Your task to perform on an android device: clear all cookies in the chrome app Image 0: 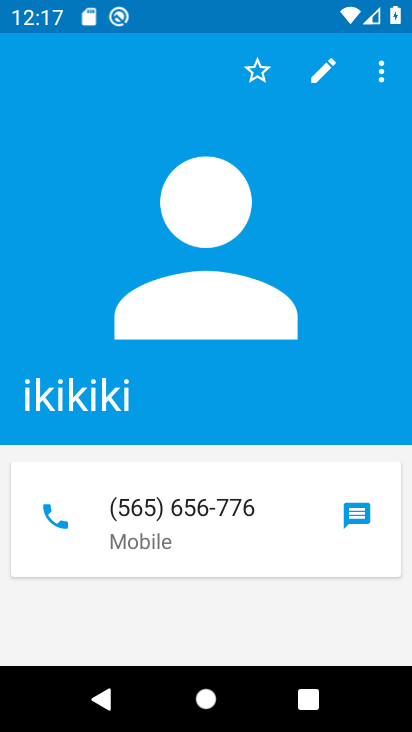
Step 0: press home button
Your task to perform on an android device: clear all cookies in the chrome app Image 1: 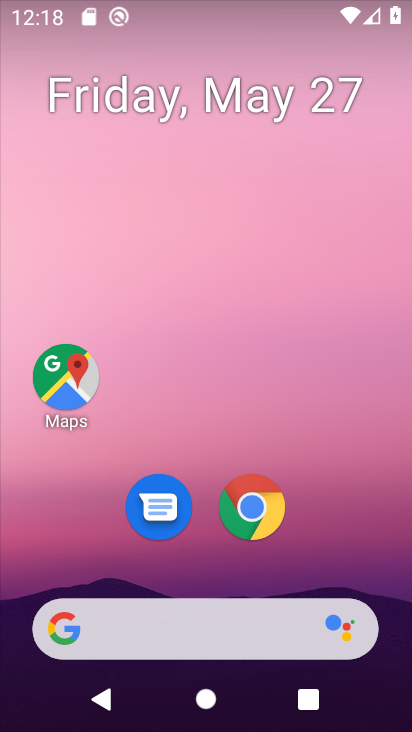
Step 1: click (270, 508)
Your task to perform on an android device: clear all cookies in the chrome app Image 2: 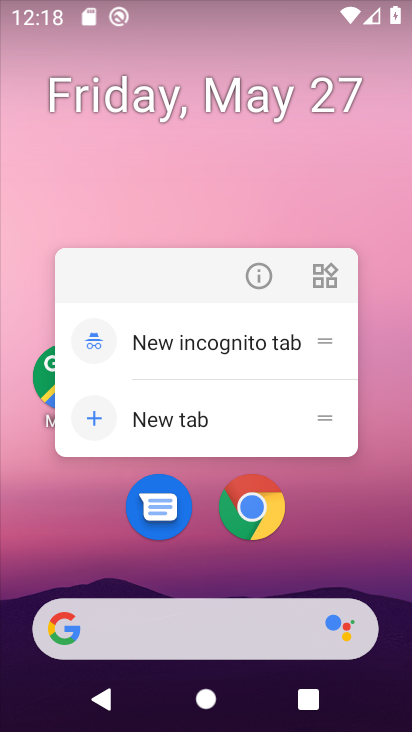
Step 2: click (271, 508)
Your task to perform on an android device: clear all cookies in the chrome app Image 3: 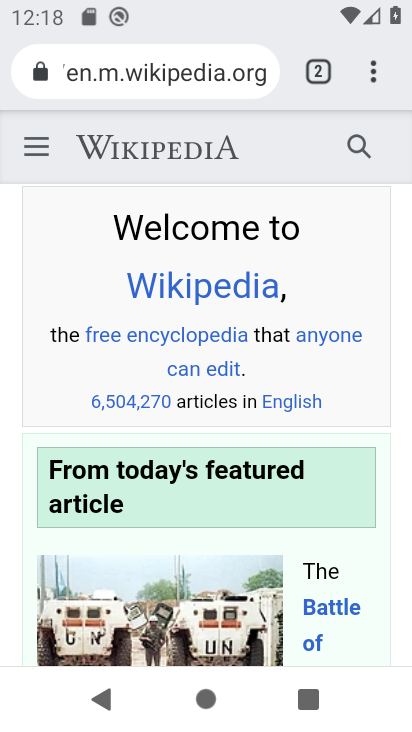
Step 3: drag from (375, 54) to (228, 488)
Your task to perform on an android device: clear all cookies in the chrome app Image 4: 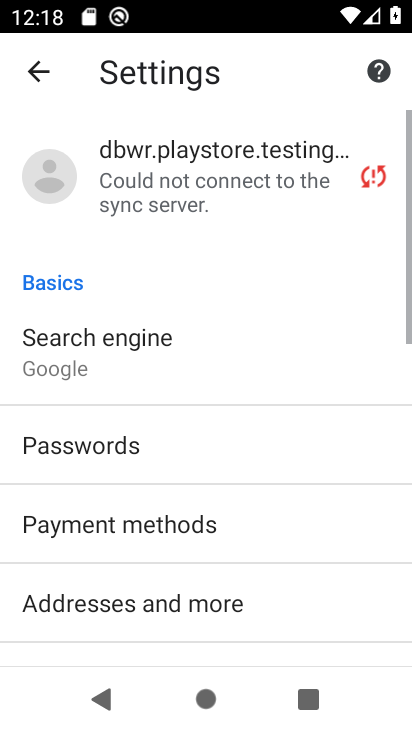
Step 4: drag from (196, 661) to (293, 178)
Your task to perform on an android device: clear all cookies in the chrome app Image 5: 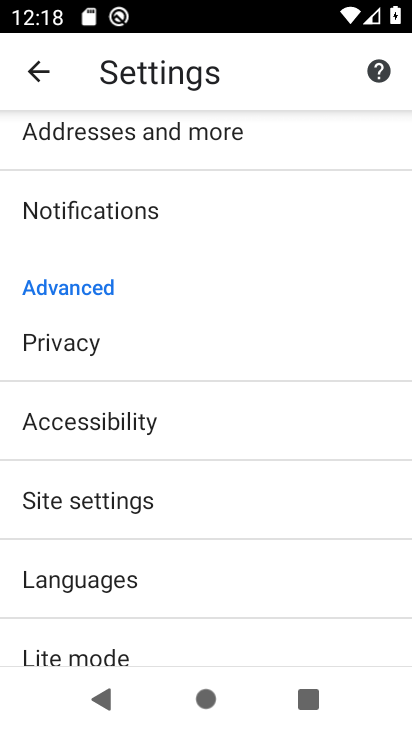
Step 5: click (127, 342)
Your task to perform on an android device: clear all cookies in the chrome app Image 6: 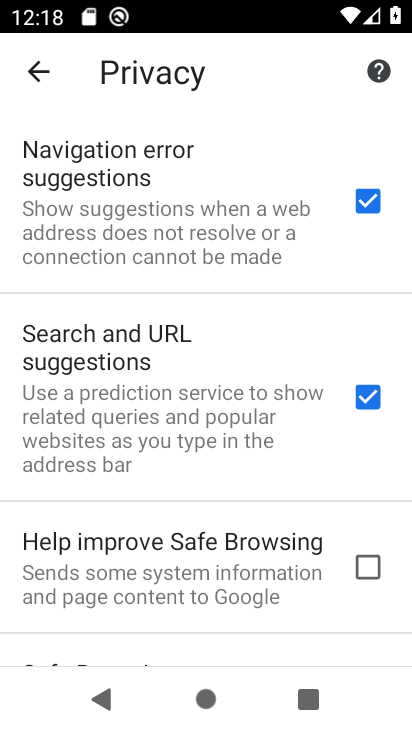
Step 6: drag from (123, 623) to (238, 140)
Your task to perform on an android device: clear all cookies in the chrome app Image 7: 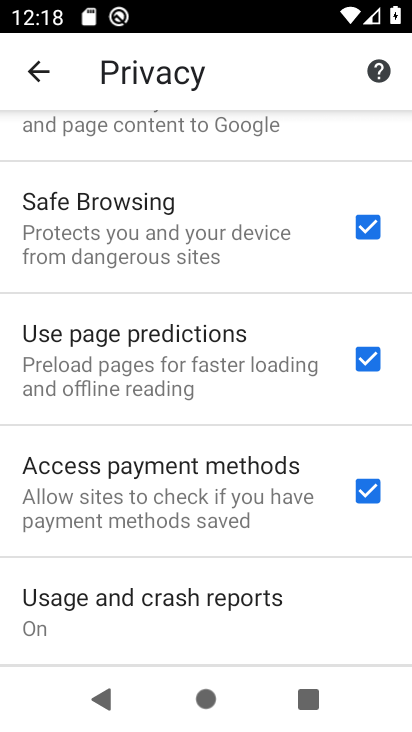
Step 7: drag from (157, 570) to (272, 99)
Your task to perform on an android device: clear all cookies in the chrome app Image 8: 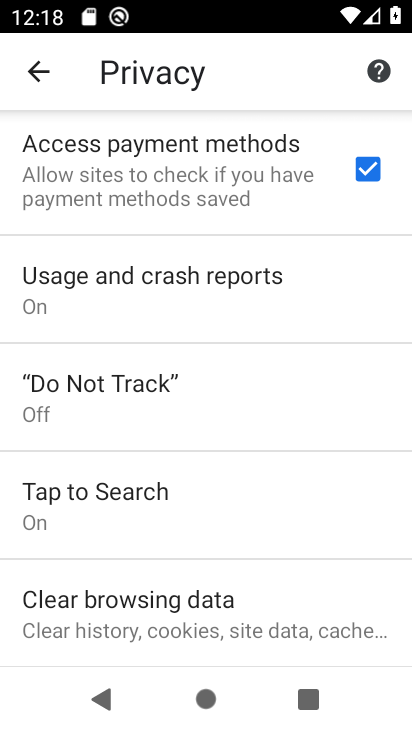
Step 8: click (173, 622)
Your task to perform on an android device: clear all cookies in the chrome app Image 9: 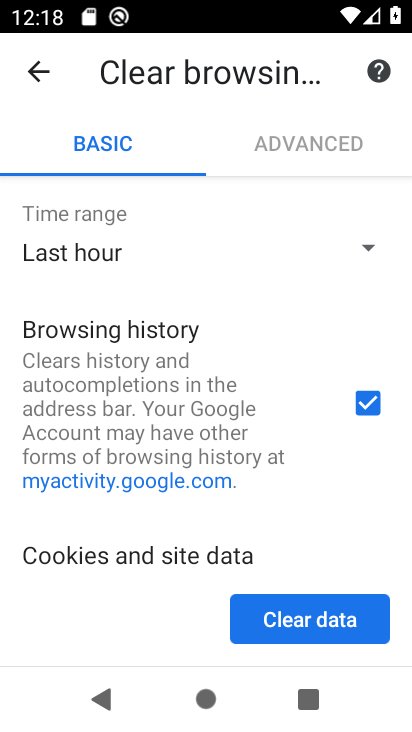
Step 9: drag from (72, 524) to (171, 281)
Your task to perform on an android device: clear all cookies in the chrome app Image 10: 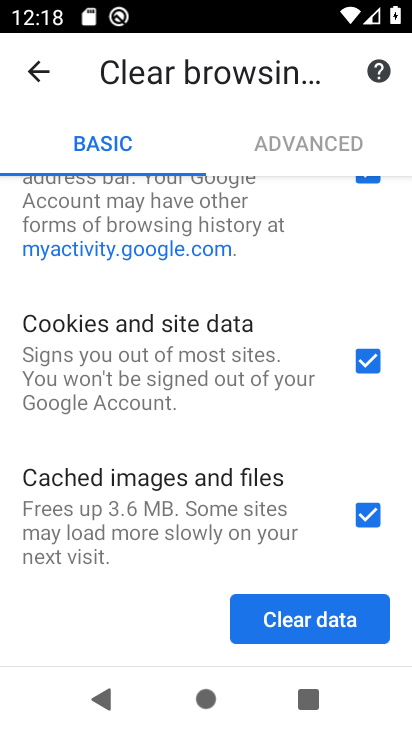
Step 10: drag from (323, 263) to (323, 505)
Your task to perform on an android device: clear all cookies in the chrome app Image 11: 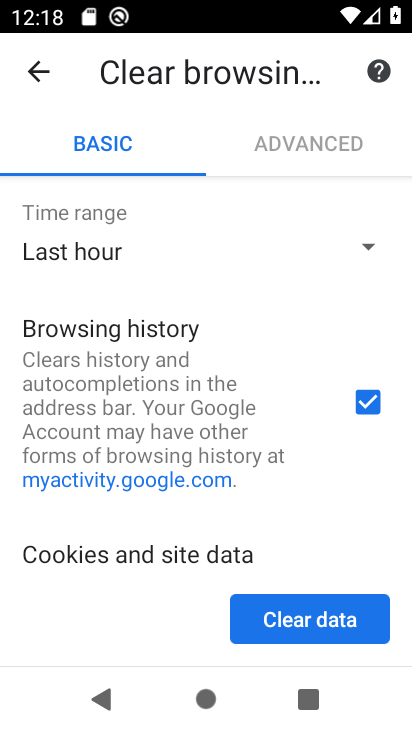
Step 11: click (353, 401)
Your task to perform on an android device: clear all cookies in the chrome app Image 12: 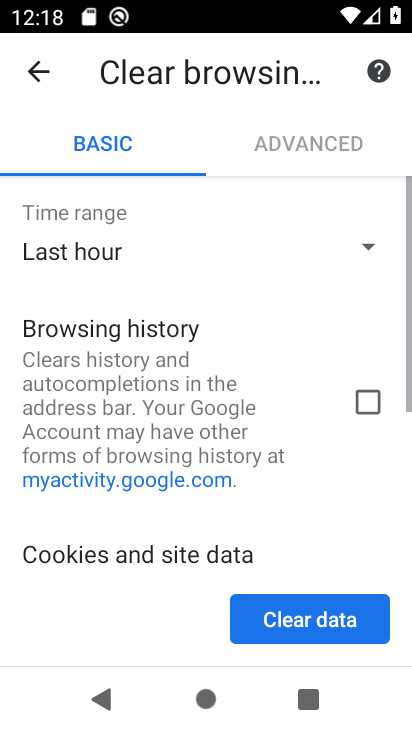
Step 12: drag from (208, 444) to (267, 101)
Your task to perform on an android device: clear all cookies in the chrome app Image 13: 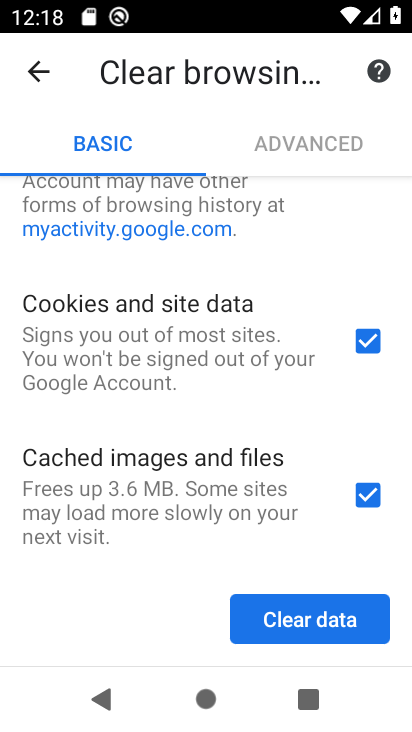
Step 13: click (384, 501)
Your task to perform on an android device: clear all cookies in the chrome app Image 14: 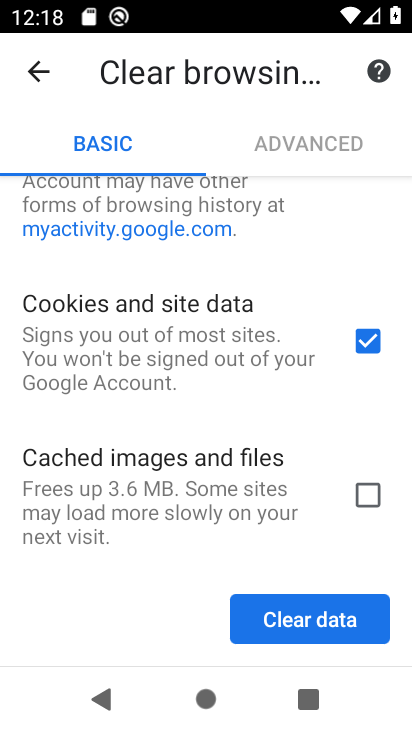
Step 14: click (308, 626)
Your task to perform on an android device: clear all cookies in the chrome app Image 15: 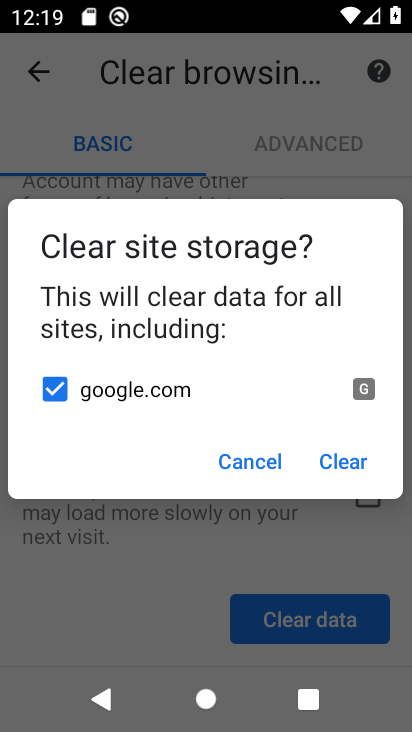
Step 15: click (357, 454)
Your task to perform on an android device: clear all cookies in the chrome app Image 16: 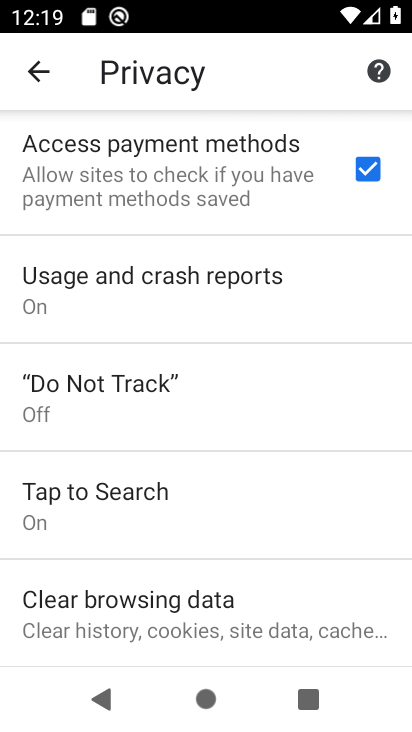
Step 16: task complete